Your task to perform on an android device: Add "razer kraken" to the cart on walmart.com, then select checkout. Image 0: 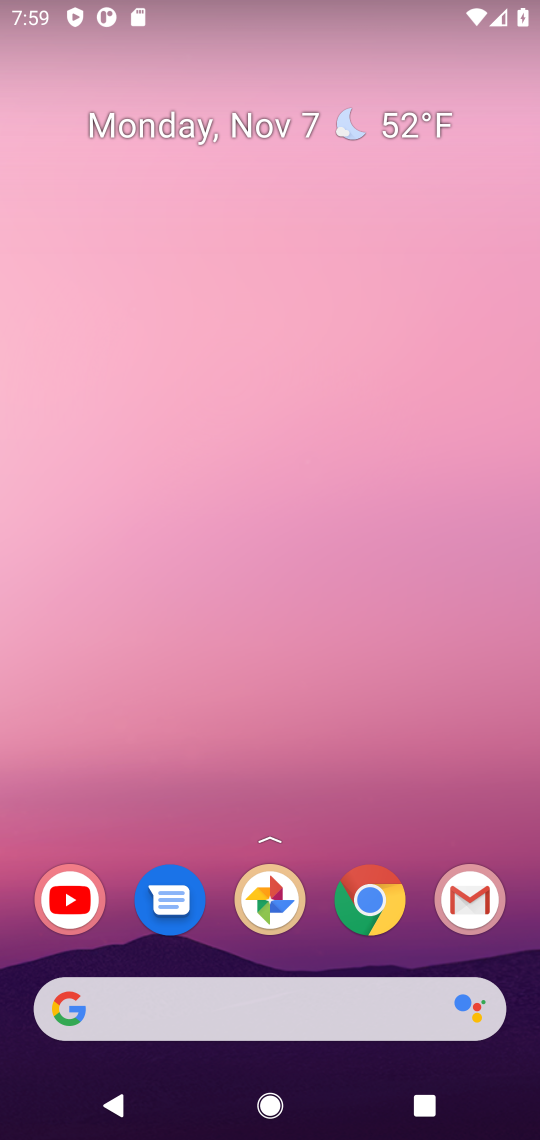
Step 0: click (238, 991)
Your task to perform on an android device: Add "razer kraken" to the cart on walmart.com, then select checkout. Image 1: 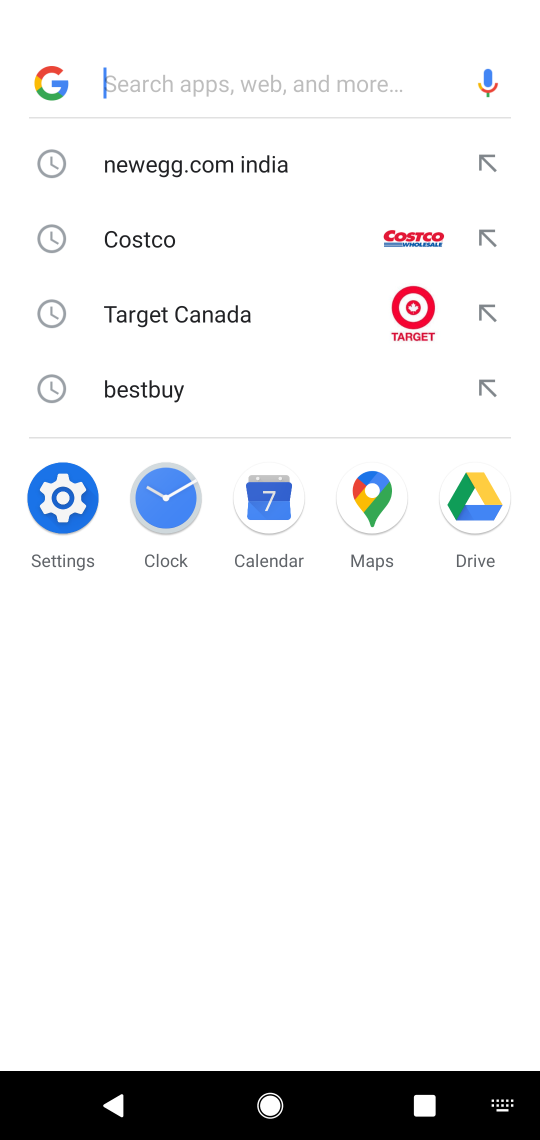
Step 1: type "walmart"
Your task to perform on an android device: Add "razer kraken" to the cart on walmart.com, then select checkout. Image 2: 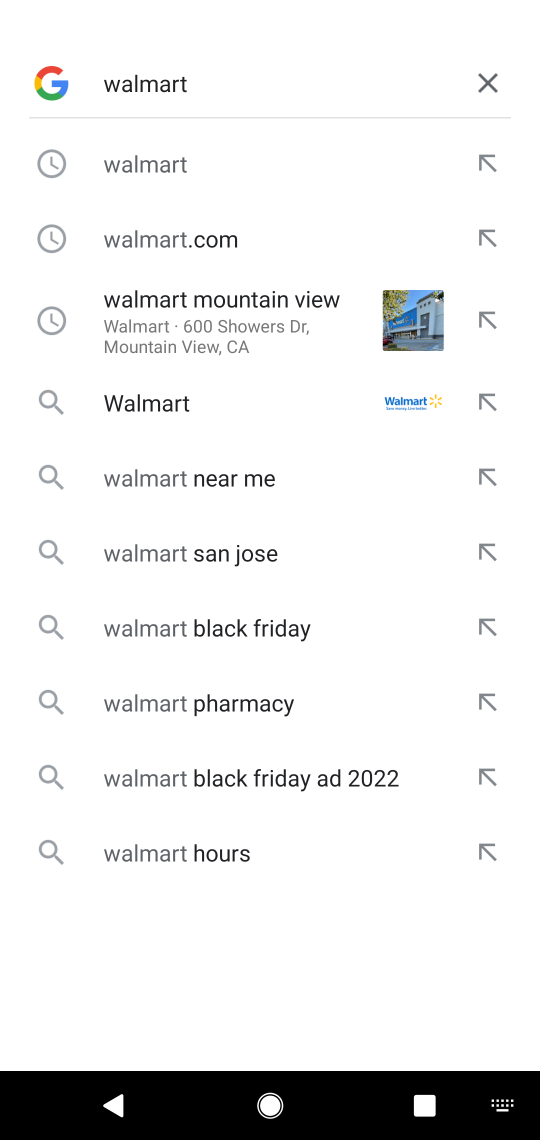
Step 2: click (135, 155)
Your task to perform on an android device: Add "razer kraken" to the cart on walmart.com, then select checkout. Image 3: 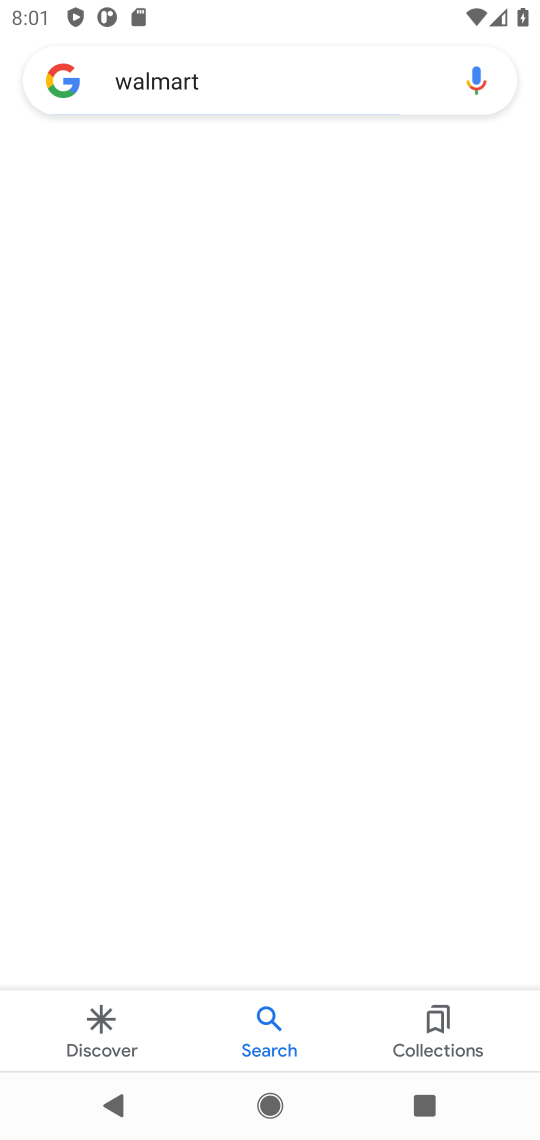
Step 3: task complete